Your task to perform on an android device: Turn on the flashlight Image 0: 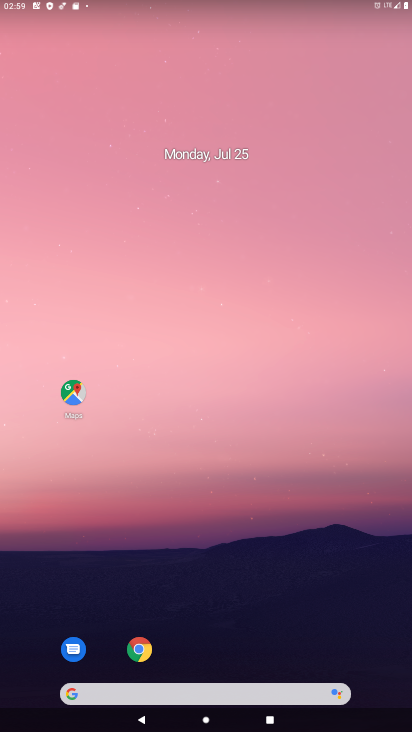
Step 0: drag from (218, 13) to (234, 450)
Your task to perform on an android device: Turn on the flashlight Image 1: 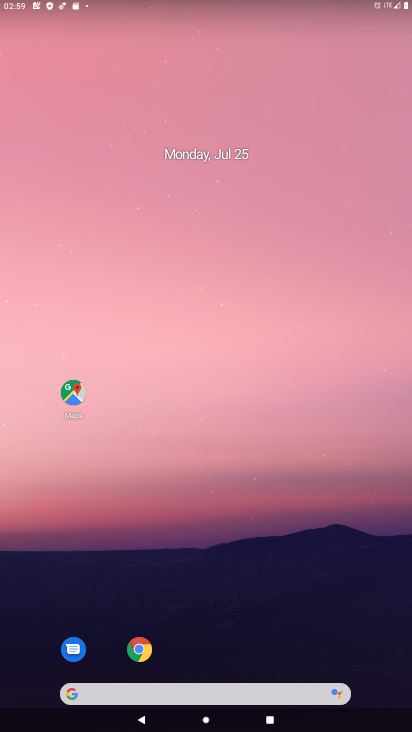
Step 1: drag from (218, 4) to (238, 465)
Your task to perform on an android device: Turn on the flashlight Image 2: 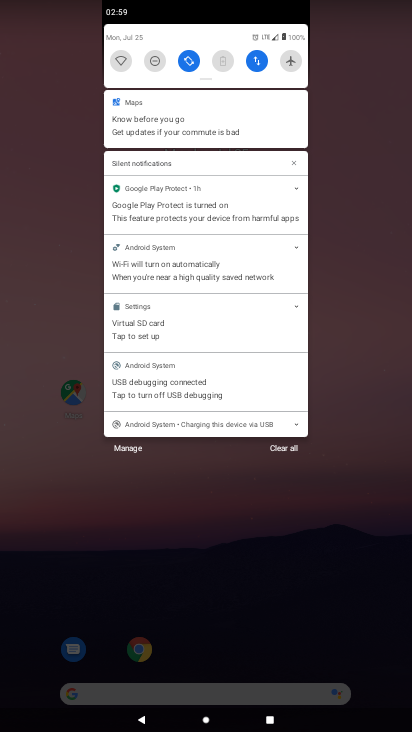
Step 2: drag from (204, 78) to (198, 280)
Your task to perform on an android device: Turn on the flashlight Image 3: 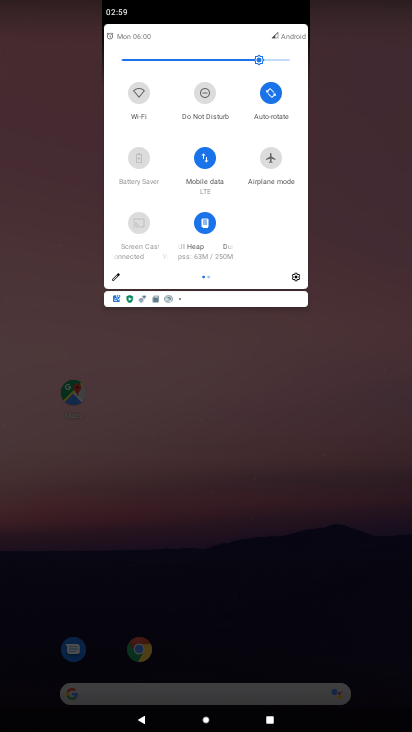
Step 3: click (111, 272)
Your task to perform on an android device: Turn on the flashlight Image 4: 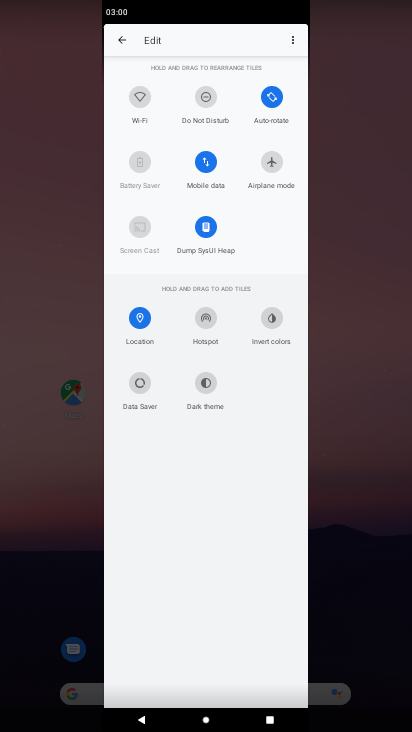
Step 4: task complete